Your task to perform on an android device: Is it going to rain tomorrow? Image 0: 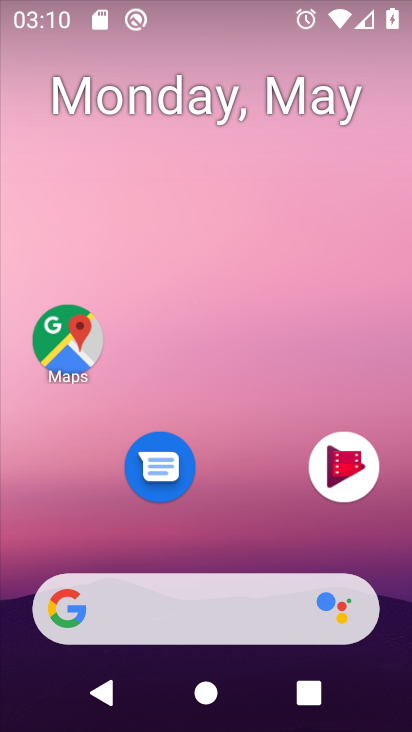
Step 0: drag from (260, 520) to (282, 240)
Your task to perform on an android device: Is it going to rain tomorrow? Image 1: 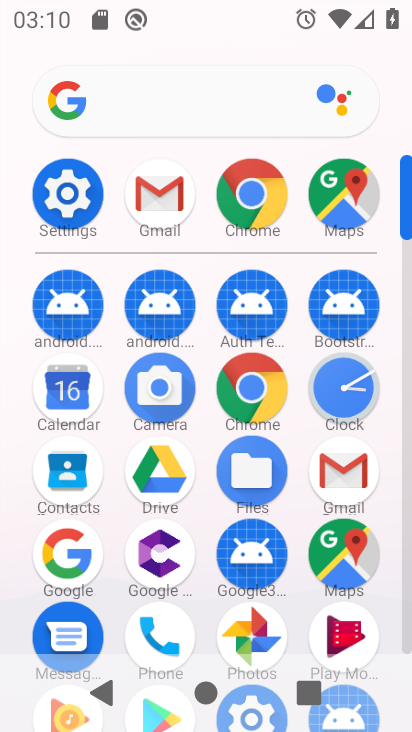
Step 1: click (245, 182)
Your task to perform on an android device: Is it going to rain tomorrow? Image 2: 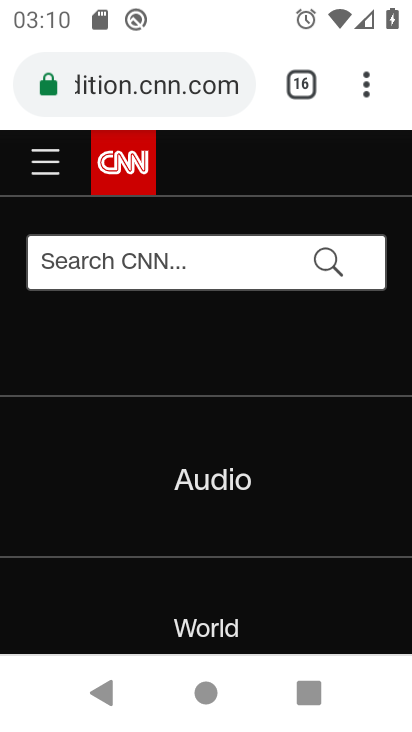
Step 2: click (342, 75)
Your task to perform on an android device: Is it going to rain tomorrow? Image 3: 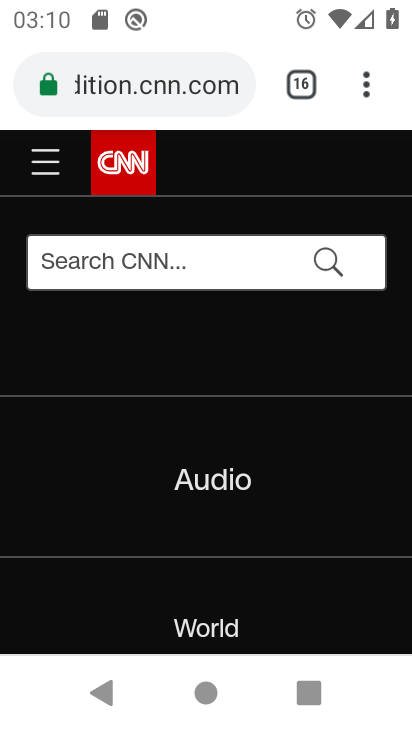
Step 3: click (353, 78)
Your task to perform on an android device: Is it going to rain tomorrow? Image 4: 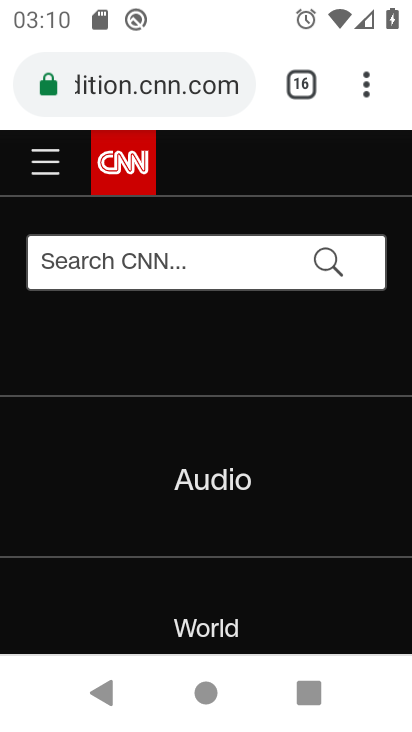
Step 4: click (309, 79)
Your task to perform on an android device: Is it going to rain tomorrow? Image 5: 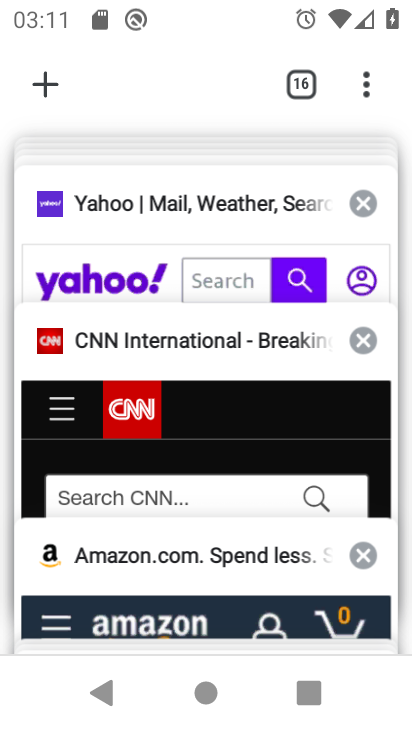
Step 5: drag from (264, 223) to (216, 570)
Your task to perform on an android device: Is it going to rain tomorrow? Image 6: 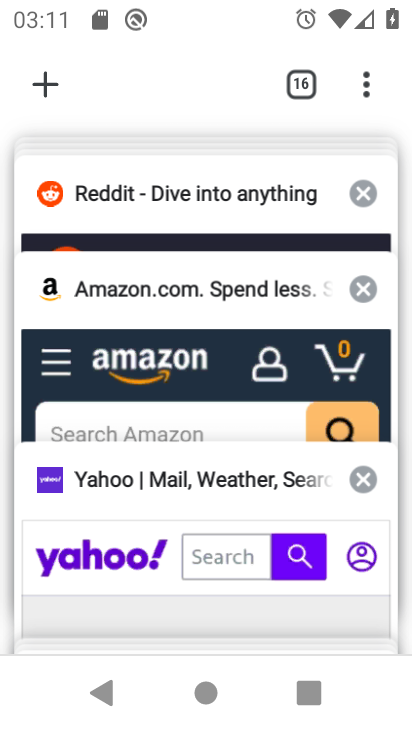
Step 6: drag from (241, 249) to (200, 628)
Your task to perform on an android device: Is it going to rain tomorrow? Image 7: 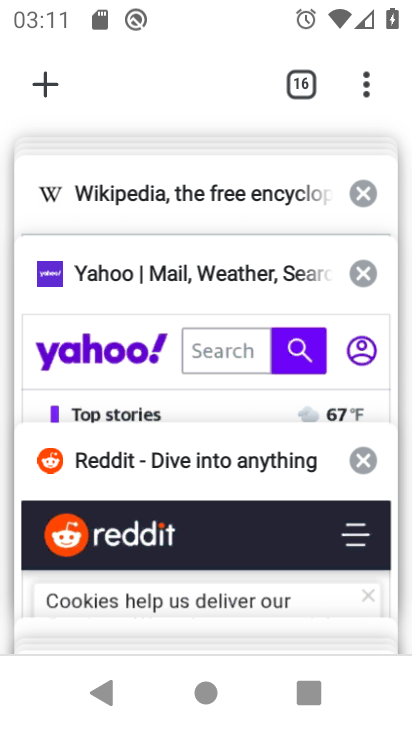
Step 7: drag from (204, 307) to (205, 628)
Your task to perform on an android device: Is it going to rain tomorrow? Image 8: 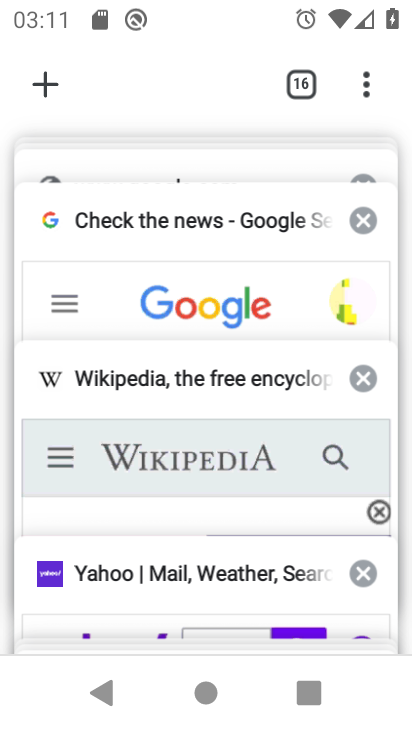
Step 8: drag from (229, 232) to (229, 583)
Your task to perform on an android device: Is it going to rain tomorrow? Image 9: 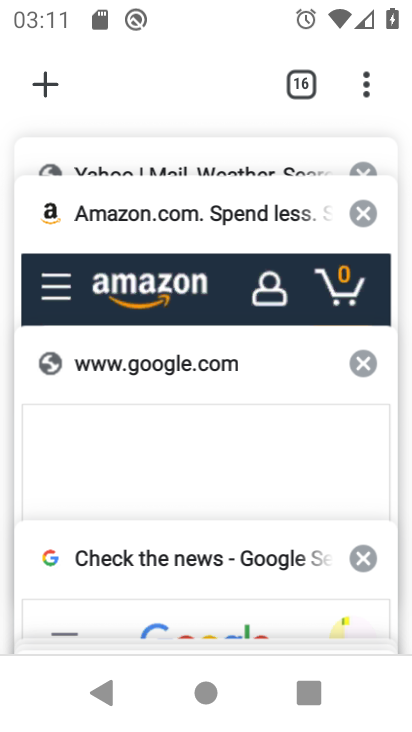
Step 9: drag from (240, 238) to (214, 614)
Your task to perform on an android device: Is it going to rain tomorrow? Image 10: 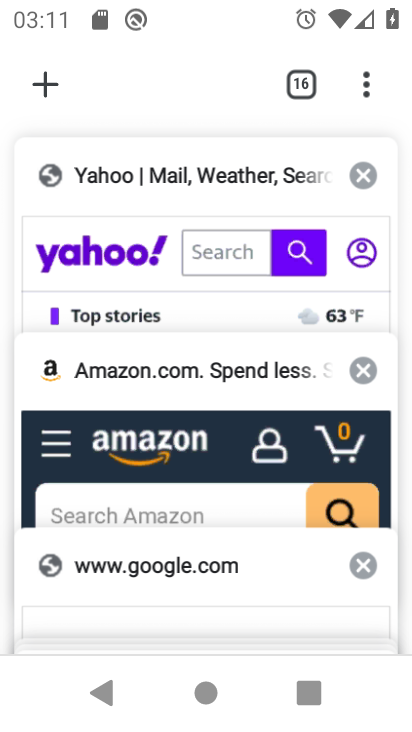
Step 10: drag from (208, 210) to (197, 604)
Your task to perform on an android device: Is it going to rain tomorrow? Image 11: 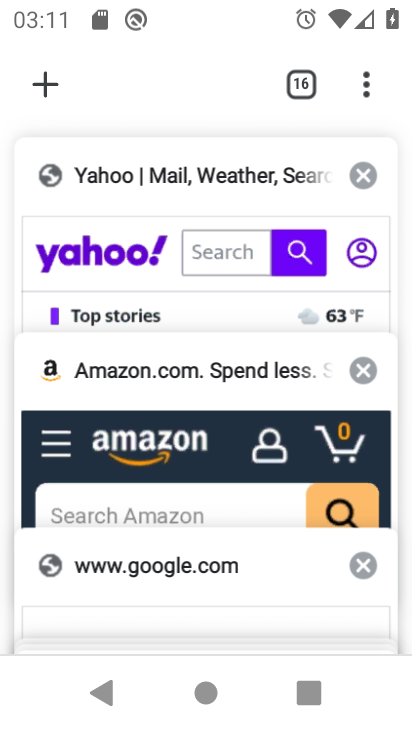
Step 11: click (40, 84)
Your task to perform on an android device: Is it going to rain tomorrow? Image 12: 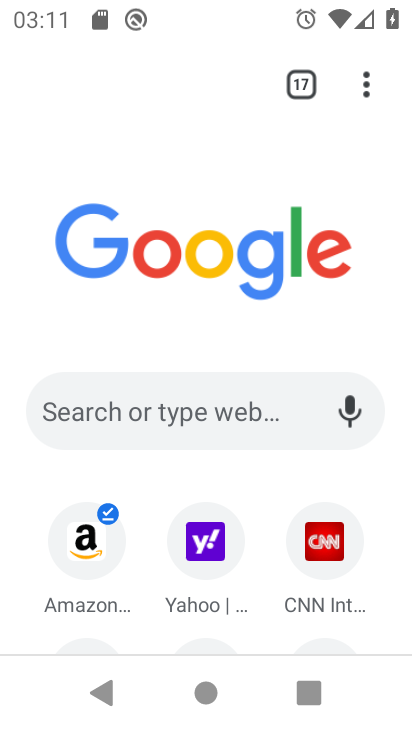
Step 12: click (225, 419)
Your task to perform on an android device: Is it going to rain tomorrow? Image 13: 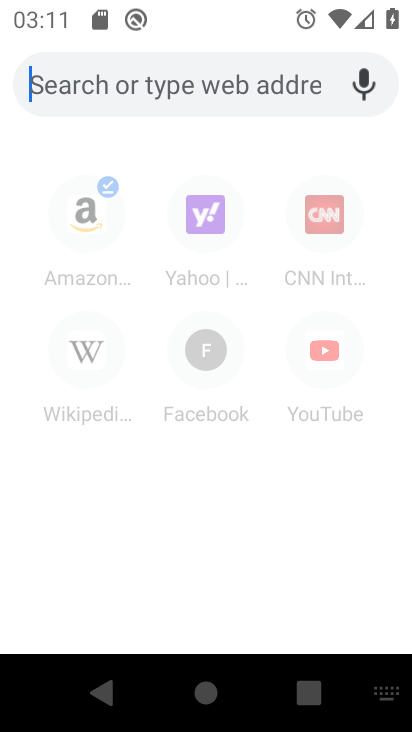
Step 13: type "Is it going to rain tomorrow?"
Your task to perform on an android device: Is it going to rain tomorrow? Image 14: 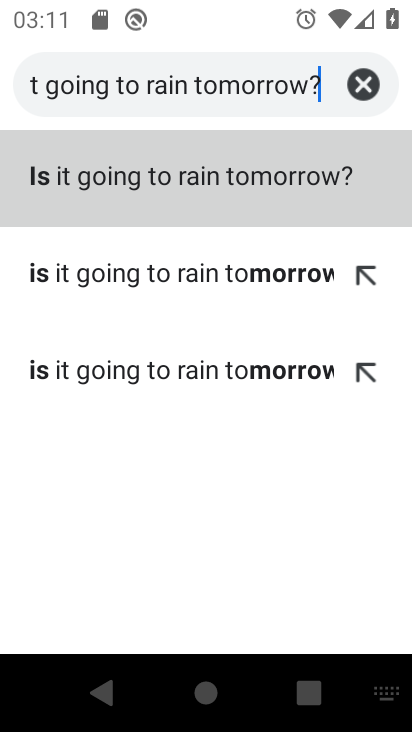
Step 14: click (202, 171)
Your task to perform on an android device: Is it going to rain tomorrow? Image 15: 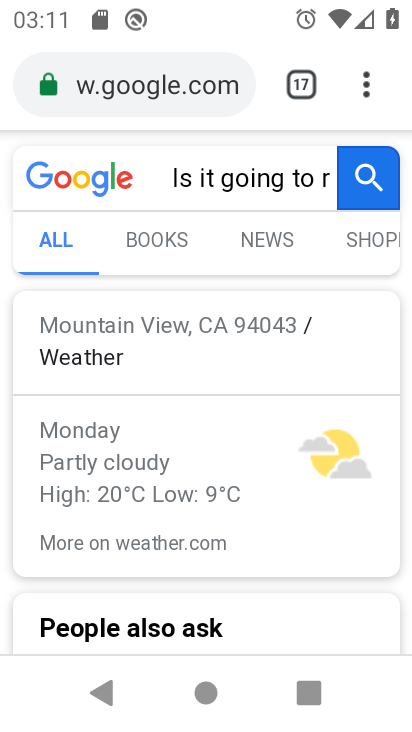
Step 15: task complete